Your task to perform on an android device: turn on priority inbox in the gmail app Image 0: 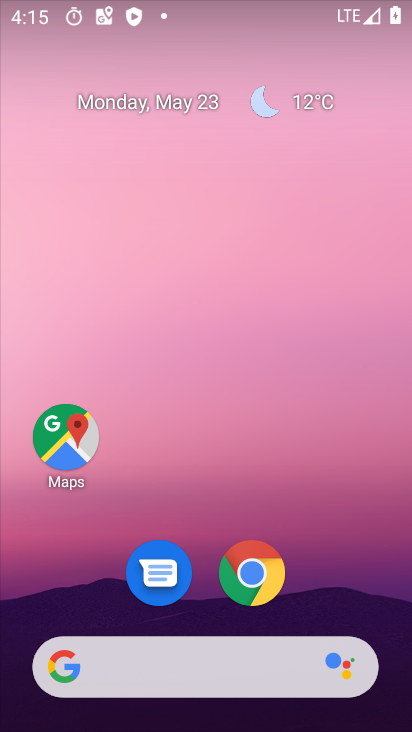
Step 0: drag from (36, 617) to (266, 204)
Your task to perform on an android device: turn on priority inbox in the gmail app Image 1: 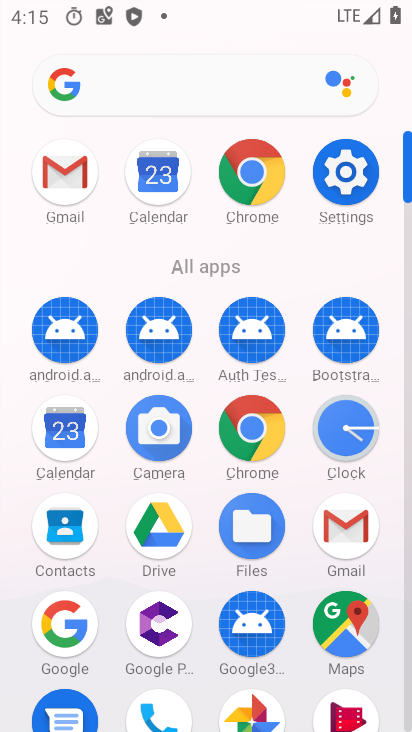
Step 1: click (349, 522)
Your task to perform on an android device: turn on priority inbox in the gmail app Image 2: 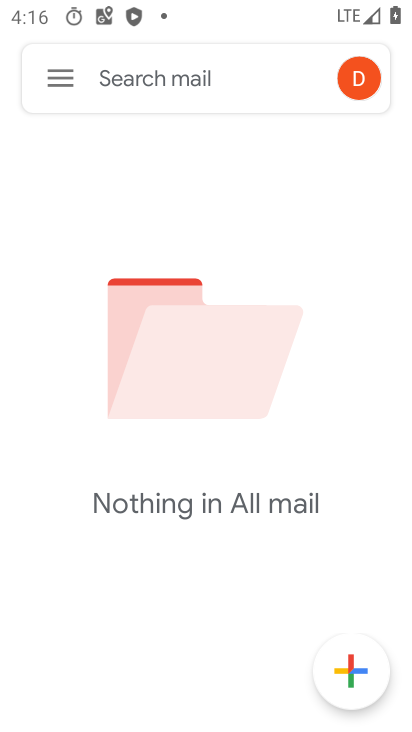
Step 2: click (67, 71)
Your task to perform on an android device: turn on priority inbox in the gmail app Image 3: 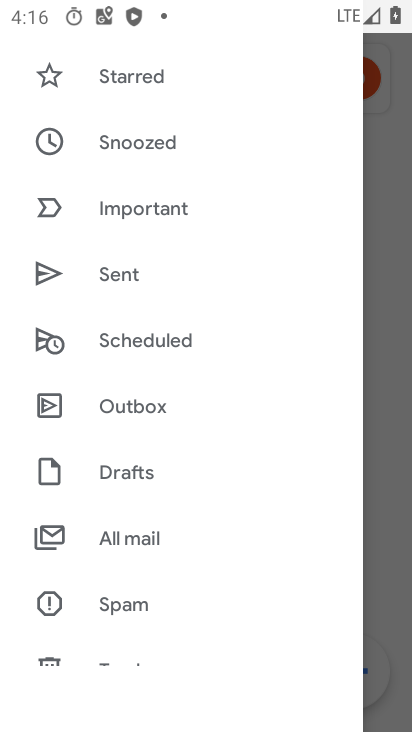
Step 3: drag from (109, 651) to (367, 101)
Your task to perform on an android device: turn on priority inbox in the gmail app Image 4: 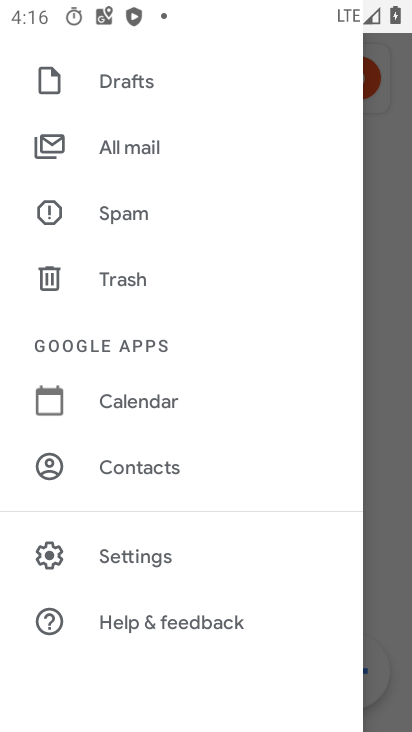
Step 4: click (93, 563)
Your task to perform on an android device: turn on priority inbox in the gmail app Image 5: 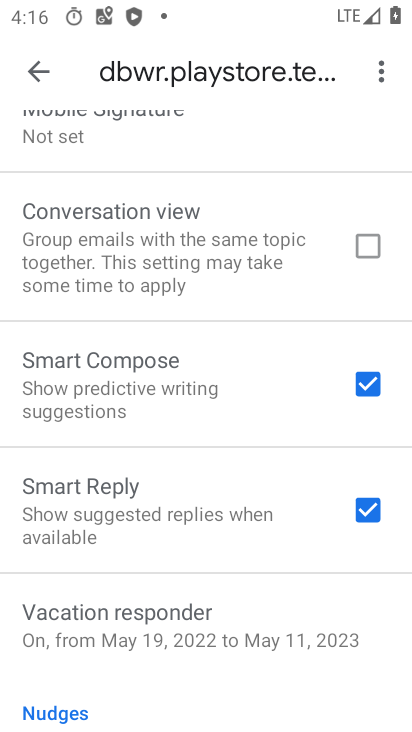
Step 5: drag from (167, 248) to (162, 550)
Your task to perform on an android device: turn on priority inbox in the gmail app Image 6: 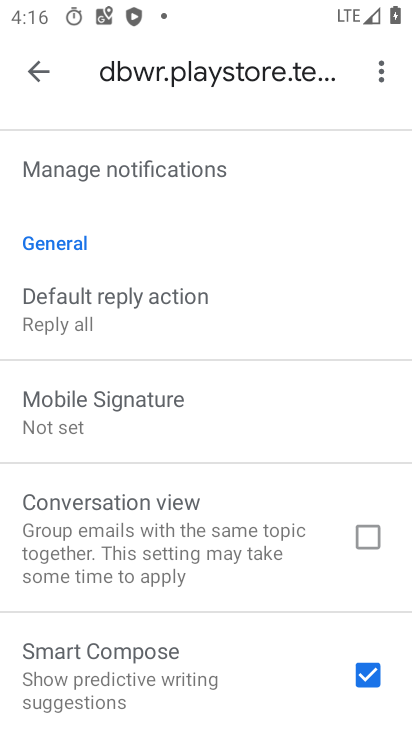
Step 6: drag from (75, 157) to (120, 465)
Your task to perform on an android device: turn on priority inbox in the gmail app Image 7: 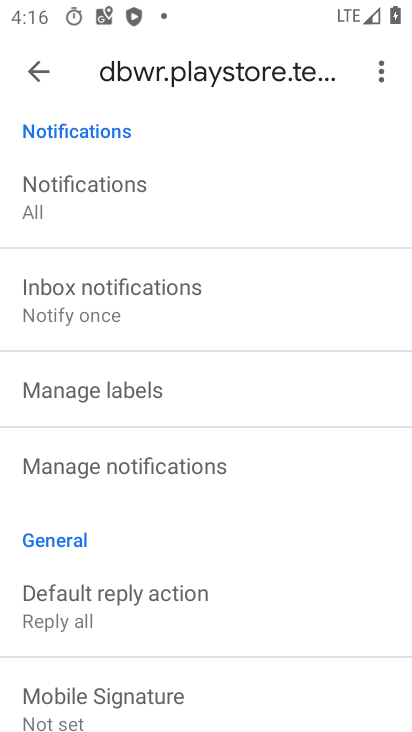
Step 7: drag from (185, 128) to (193, 444)
Your task to perform on an android device: turn on priority inbox in the gmail app Image 8: 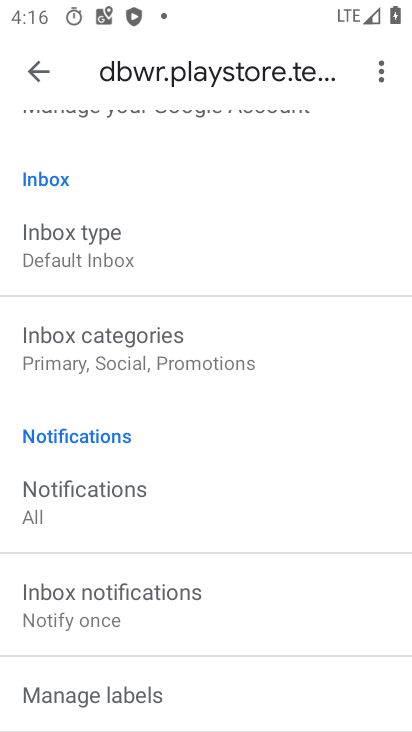
Step 8: click (188, 237)
Your task to perform on an android device: turn on priority inbox in the gmail app Image 9: 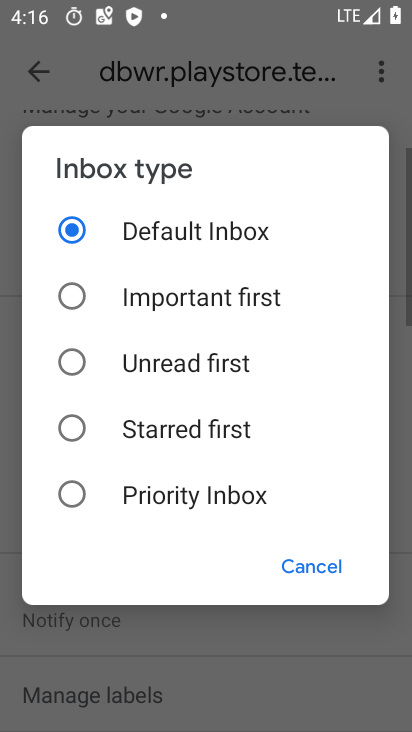
Step 9: click (99, 508)
Your task to perform on an android device: turn on priority inbox in the gmail app Image 10: 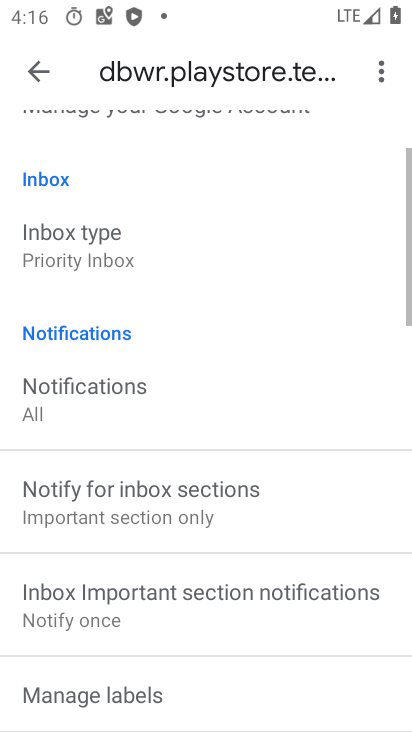
Step 10: task complete